Your task to perform on an android device: choose inbox layout in the gmail app Image 0: 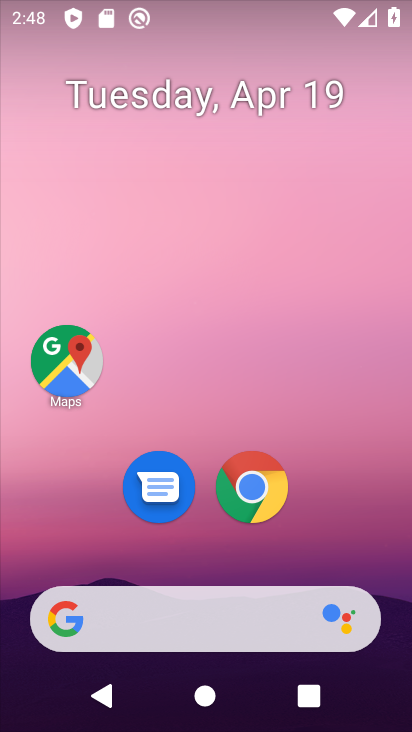
Step 0: drag from (227, 281) to (270, 7)
Your task to perform on an android device: choose inbox layout in the gmail app Image 1: 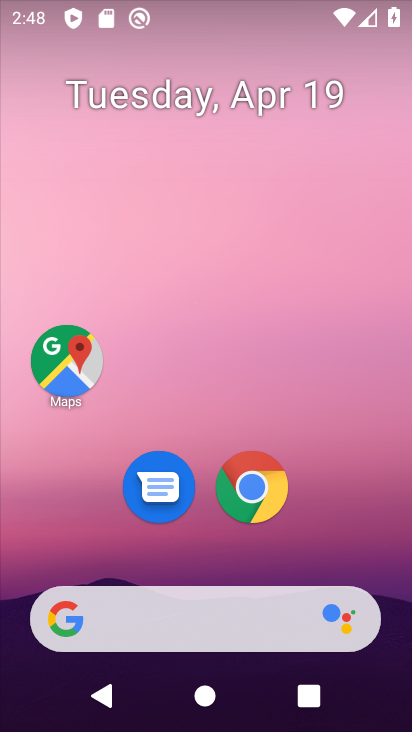
Step 1: drag from (201, 353) to (239, 53)
Your task to perform on an android device: choose inbox layout in the gmail app Image 2: 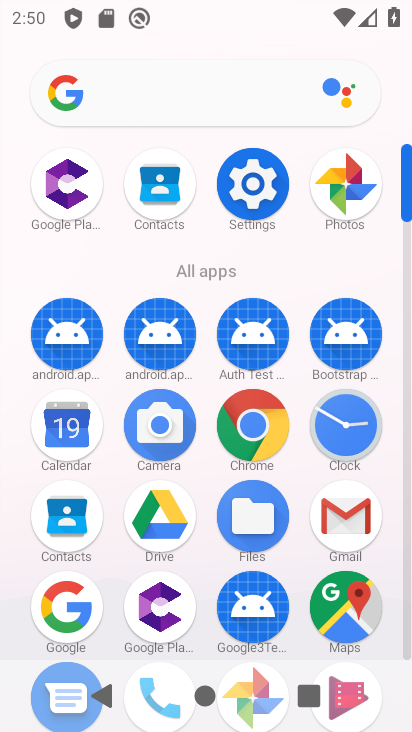
Step 2: click (351, 510)
Your task to perform on an android device: choose inbox layout in the gmail app Image 3: 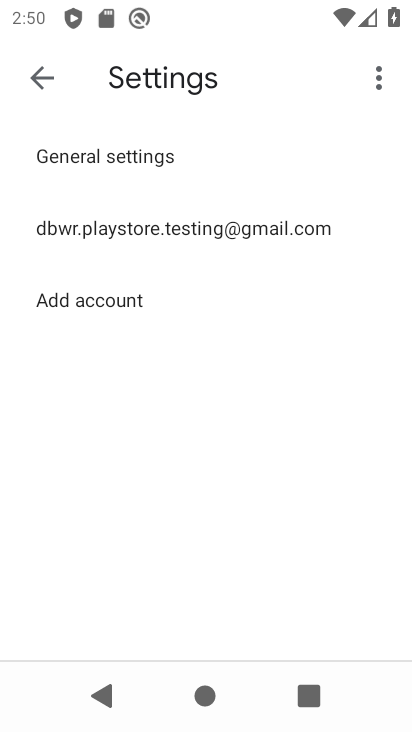
Step 3: click (141, 223)
Your task to perform on an android device: choose inbox layout in the gmail app Image 4: 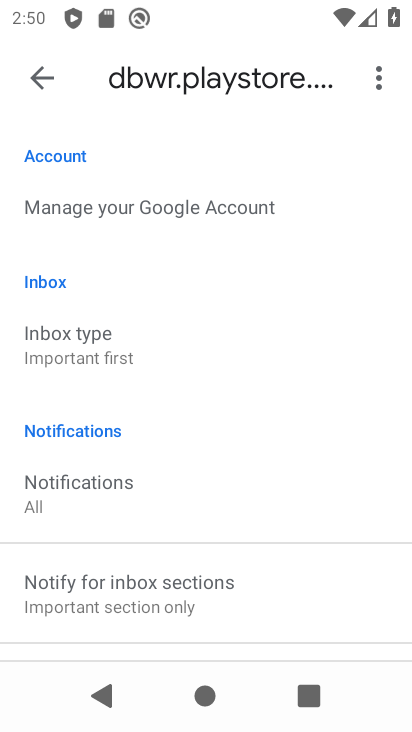
Step 4: click (112, 326)
Your task to perform on an android device: choose inbox layout in the gmail app Image 5: 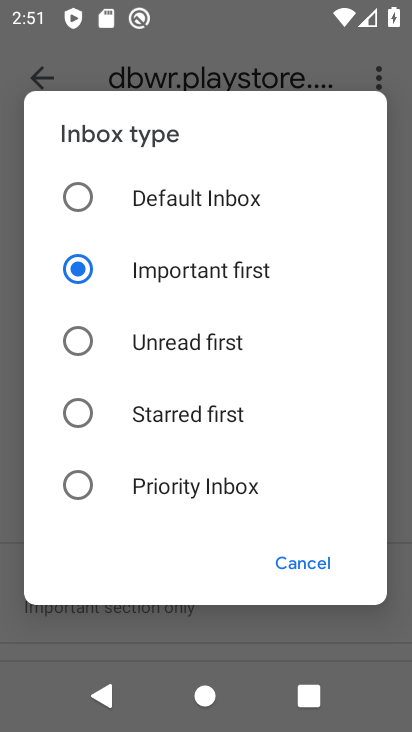
Step 5: click (68, 198)
Your task to perform on an android device: choose inbox layout in the gmail app Image 6: 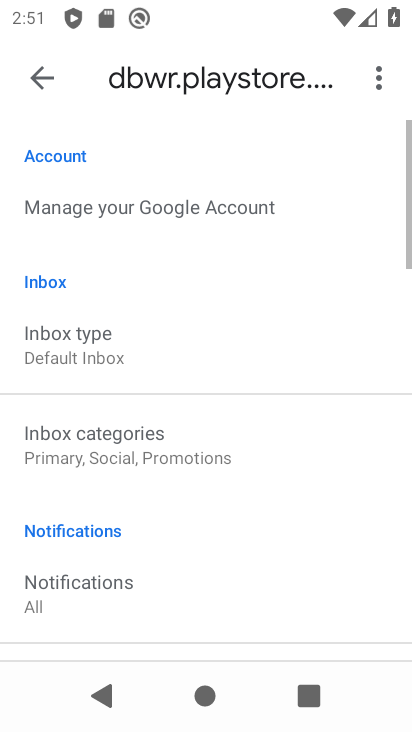
Step 6: task complete